Your task to perform on an android device: Do I have any events this weekend? Image 0: 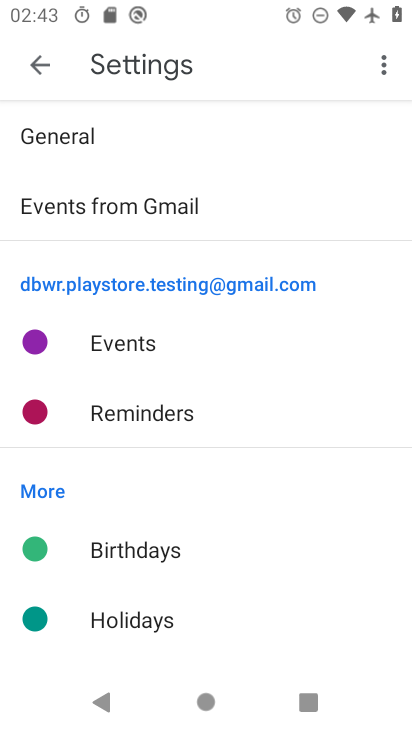
Step 0: press home button
Your task to perform on an android device: Do I have any events this weekend? Image 1: 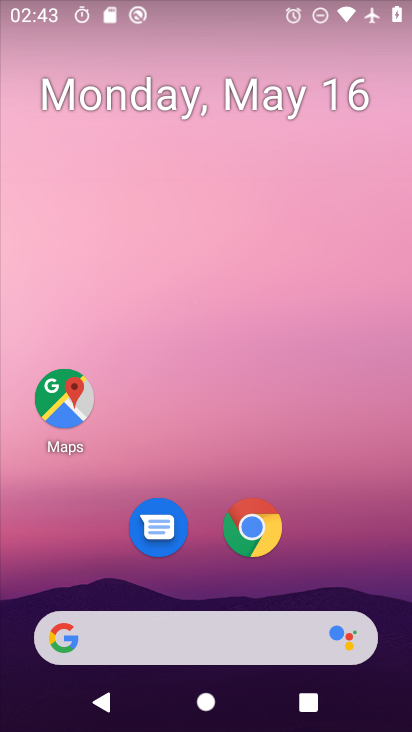
Step 1: drag from (158, 654) to (279, 206)
Your task to perform on an android device: Do I have any events this weekend? Image 2: 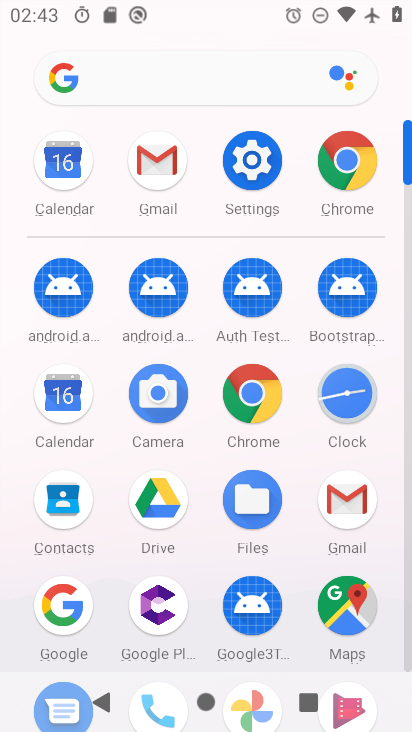
Step 2: click (53, 405)
Your task to perform on an android device: Do I have any events this weekend? Image 3: 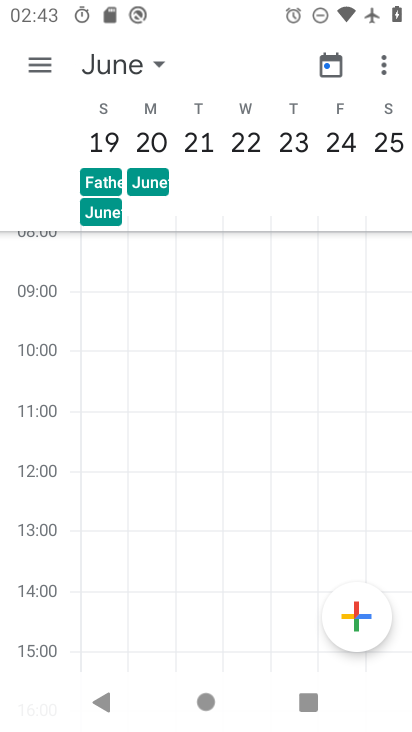
Step 3: click (118, 68)
Your task to perform on an android device: Do I have any events this weekend? Image 4: 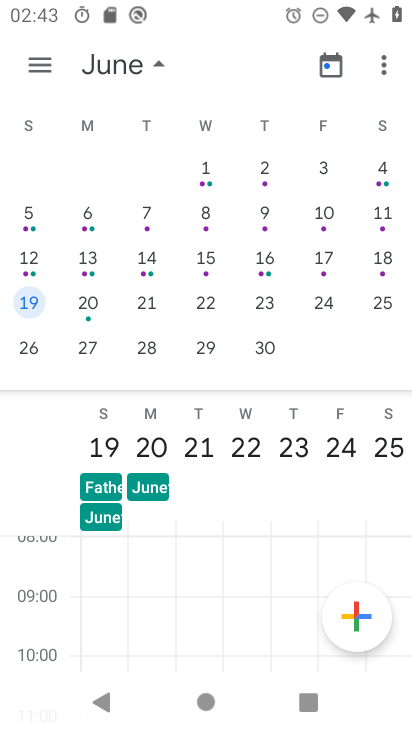
Step 4: drag from (135, 233) to (405, 192)
Your task to perform on an android device: Do I have any events this weekend? Image 5: 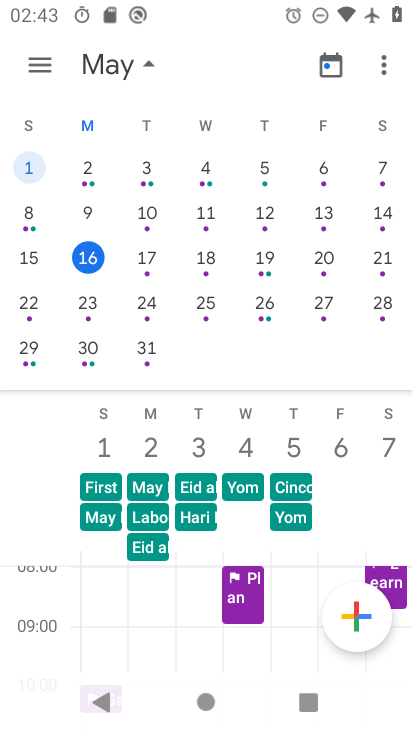
Step 5: click (385, 253)
Your task to perform on an android device: Do I have any events this weekend? Image 6: 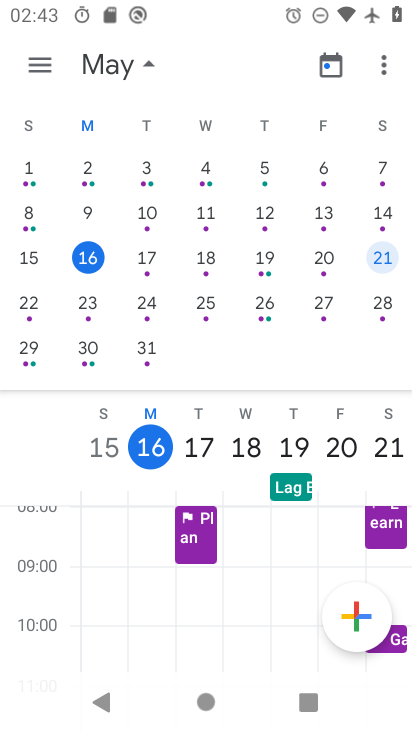
Step 6: click (40, 66)
Your task to perform on an android device: Do I have any events this weekend? Image 7: 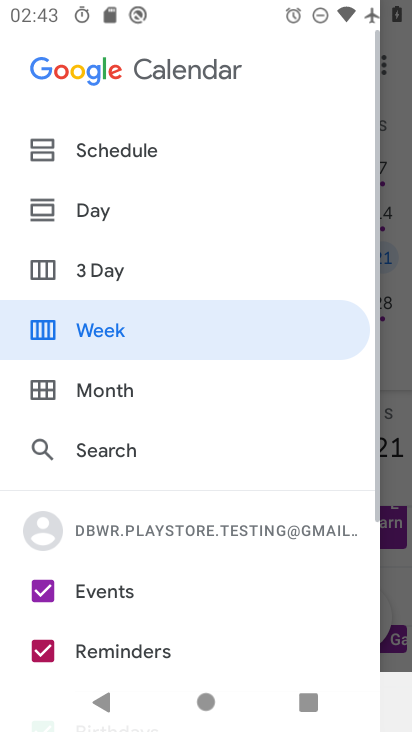
Step 7: click (111, 146)
Your task to perform on an android device: Do I have any events this weekend? Image 8: 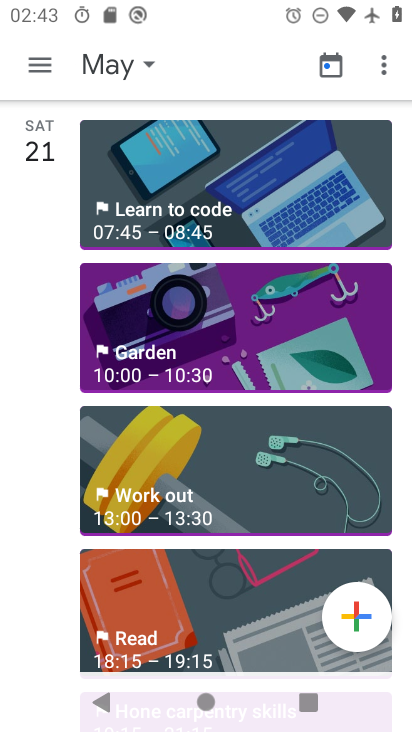
Step 8: click (197, 327)
Your task to perform on an android device: Do I have any events this weekend? Image 9: 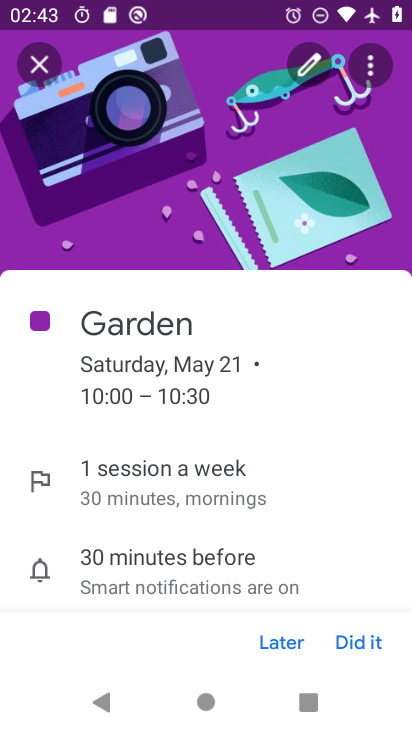
Step 9: task complete